Your task to perform on an android device: turn on data saver in the chrome app Image 0: 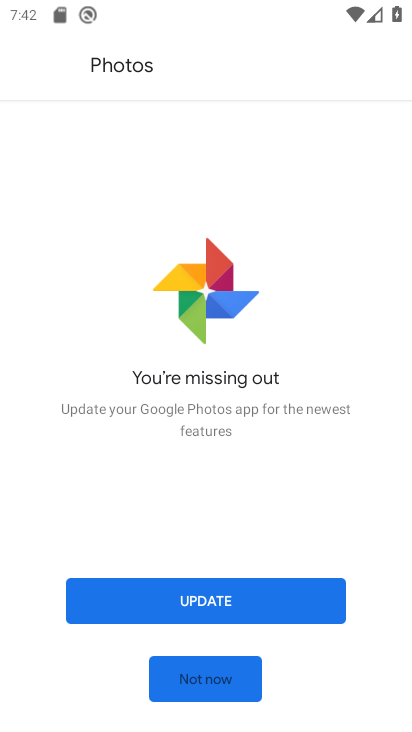
Step 0: press home button
Your task to perform on an android device: turn on data saver in the chrome app Image 1: 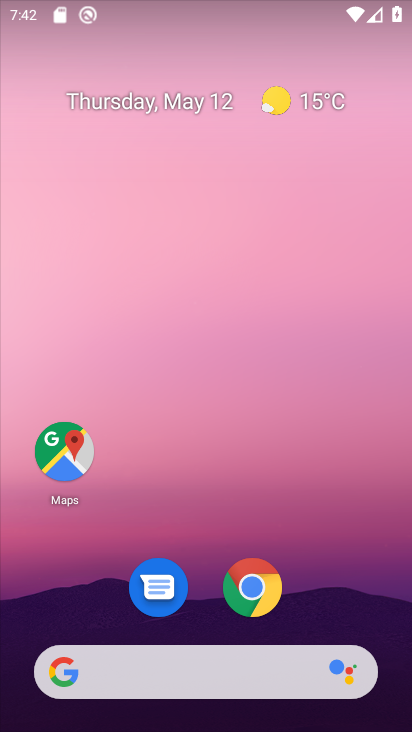
Step 1: drag from (379, 628) to (241, 48)
Your task to perform on an android device: turn on data saver in the chrome app Image 2: 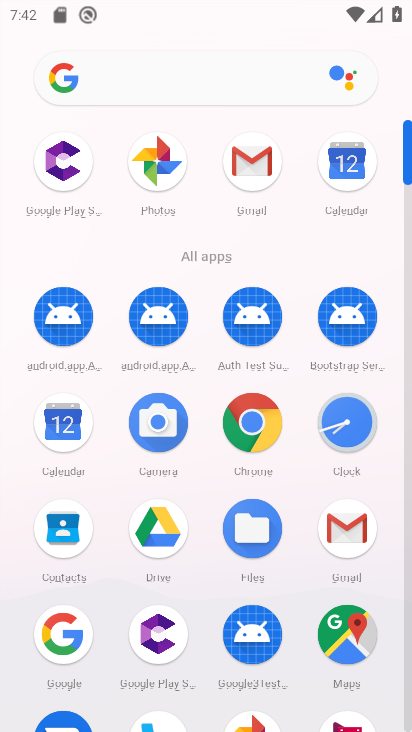
Step 2: click (263, 416)
Your task to perform on an android device: turn on data saver in the chrome app Image 3: 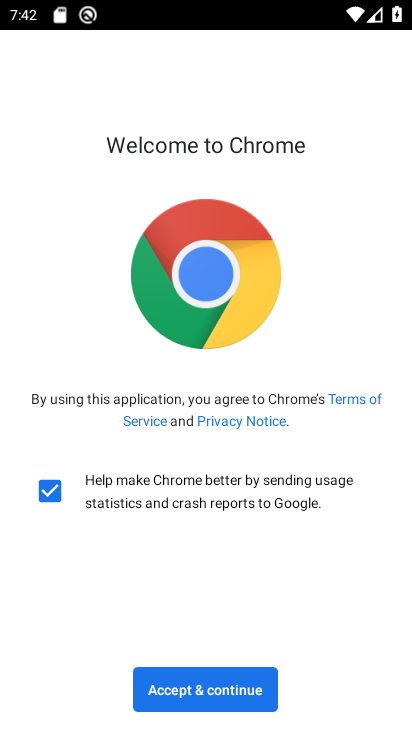
Step 3: click (203, 694)
Your task to perform on an android device: turn on data saver in the chrome app Image 4: 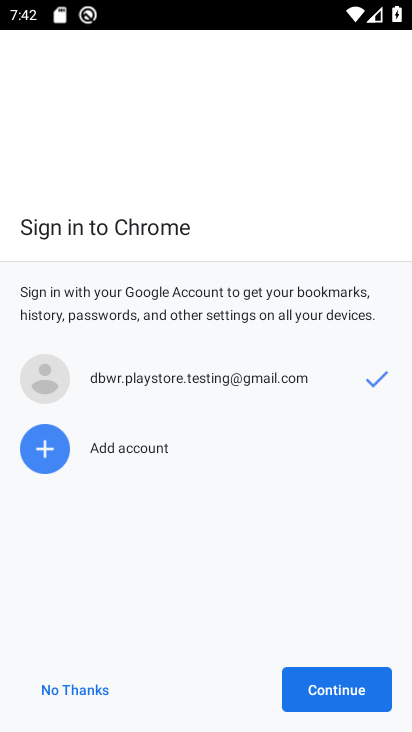
Step 4: click (203, 694)
Your task to perform on an android device: turn on data saver in the chrome app Image 5: 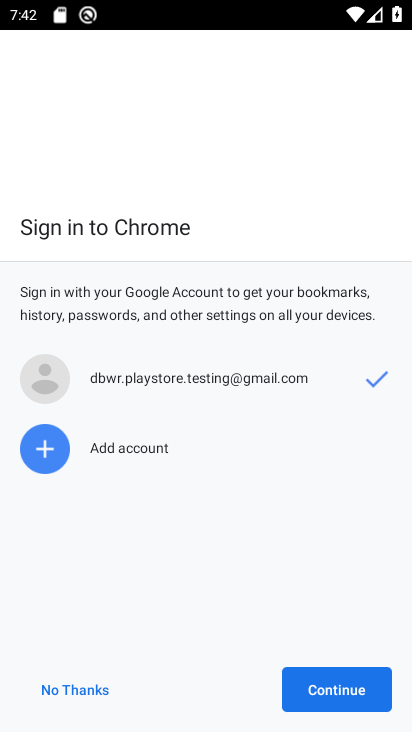
Step 5: click (306, 679)
Your task to perform on an android device: turn on data saver in the chrome app Image 6: 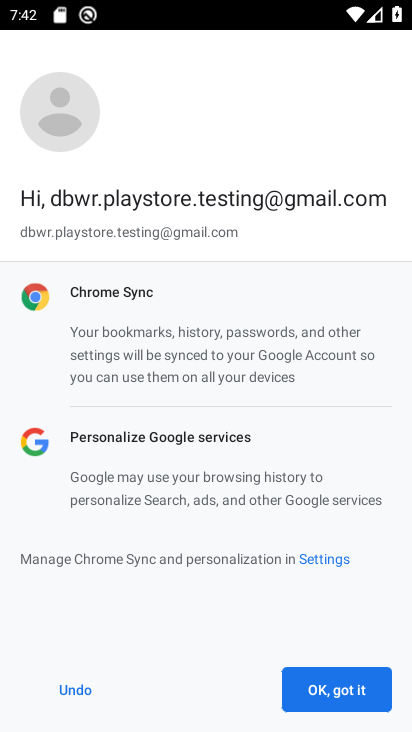
Step 6: click (306, 679)
Your task to perform on an android device: turn on data saver in the chrome app Image 7: 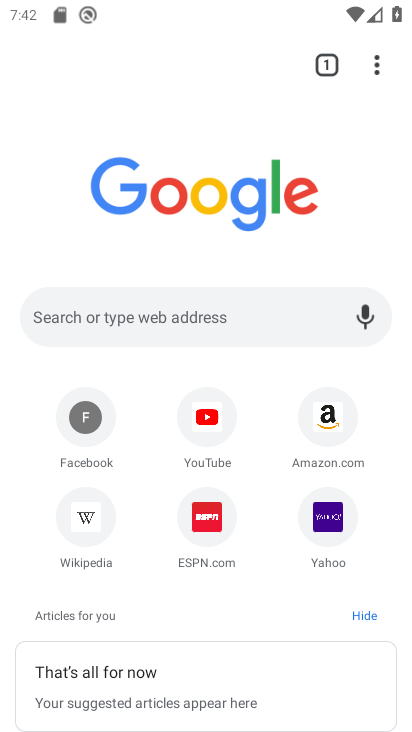
Step 7: click (380, 62)
Your task to perform on an android device: turn on data saver in the chrome app Image 8: 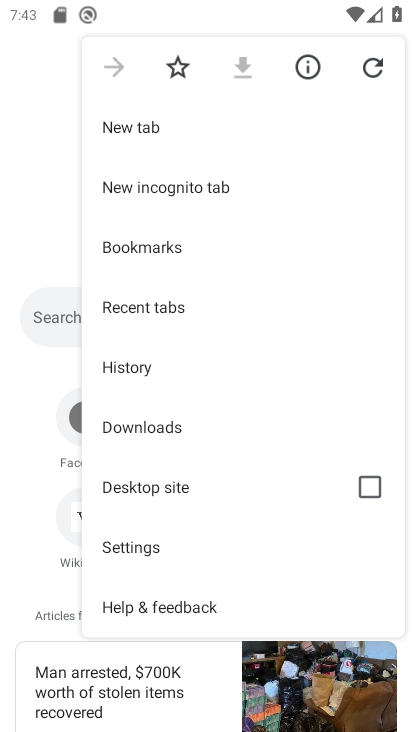
Step 8: click (207, 556)
Your task to perform on an android device: turn on data saver in the chrome app Image 9: 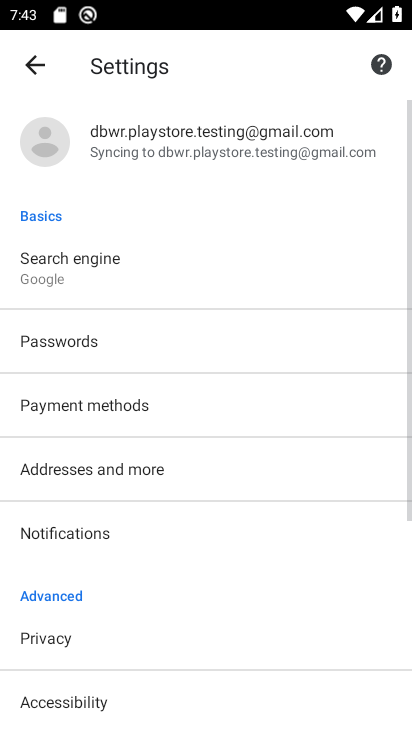
Step 9: drag from (177, 608) to (195, 202)
Your task to perform on an android device: turn on data saver in the chrome app Image 10: 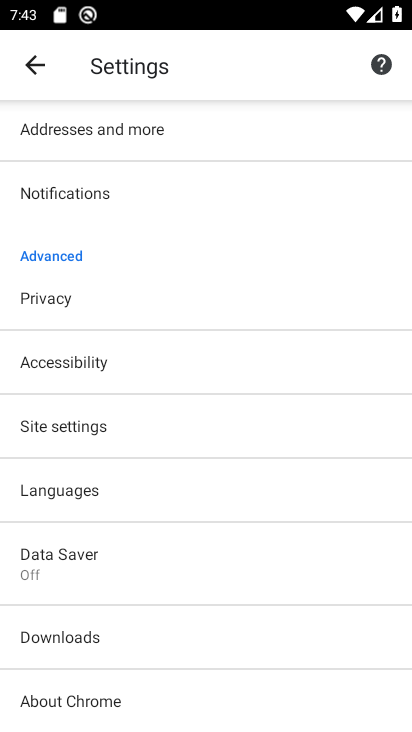
Step 10: click (97, 546)
Your task to perform on an android device: turn on data saver in the chrome app Image 11: 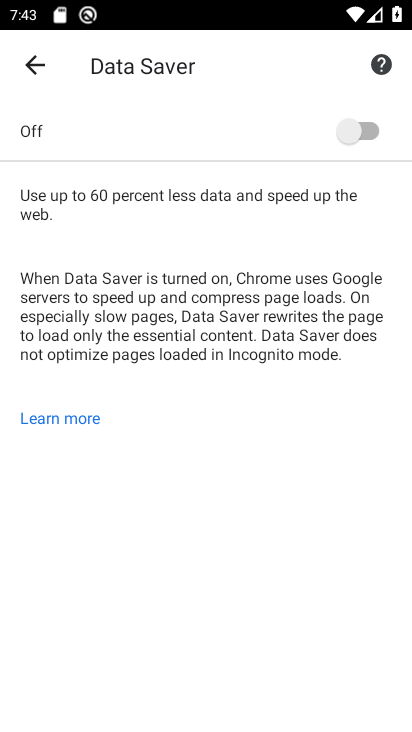
Step 11: click (344, 144)
Your task to perform on an android device: turn on data saver in the chrome app Image 12: 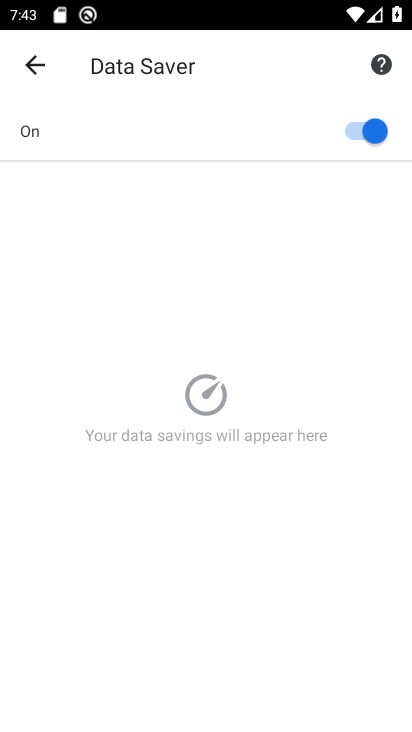
Step 12: task complete